Your task to perform on an android device: Turn off the flashlight Image 0: 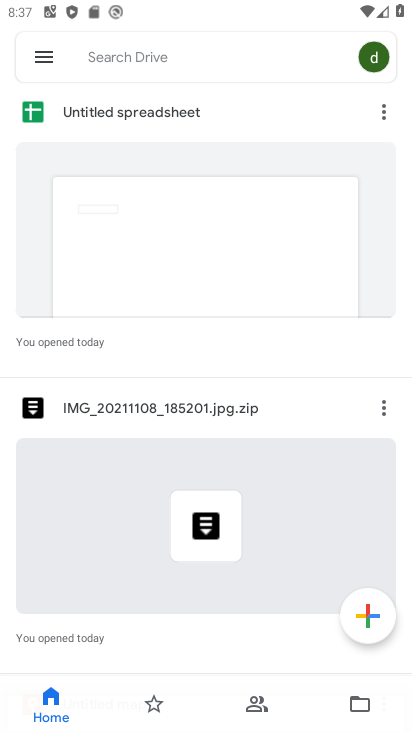
Step 0: press home button
Your task to perform on an android device: Turn off the flashlight Image 1: 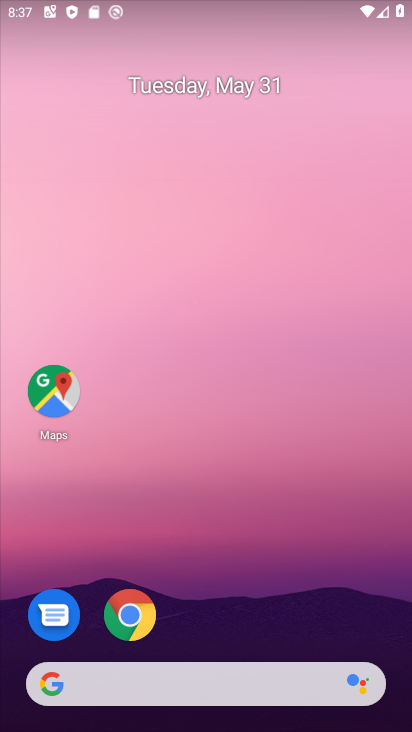
Step 1: drag from (249, 20) to (232, 448)
Your task to perform on an android device: Turn off the flashlight Image 2: 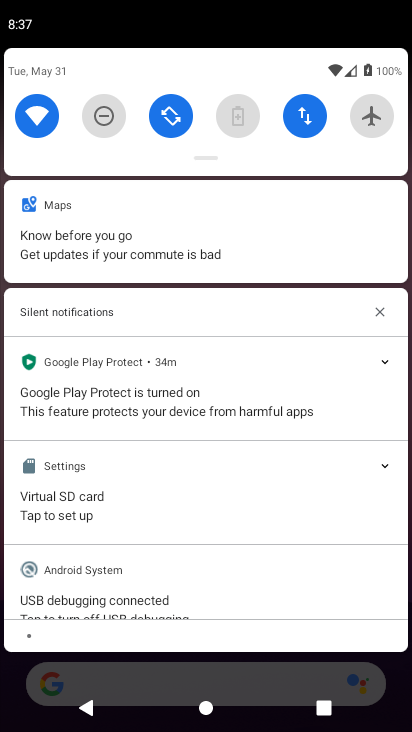
Step 2: drag from (203, 148) to (216, 416)
Your task to perform on an android device: Turn off the flashlight Image 3: 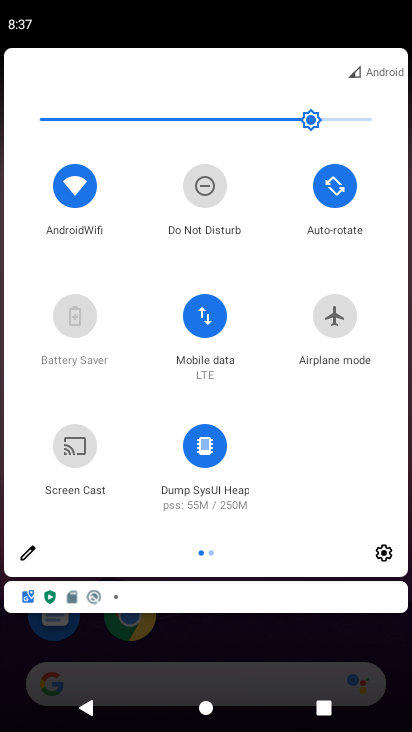
Step 3: click (22, 550)
Your task to perform on an android device: Turn off the flashlight Image 4: 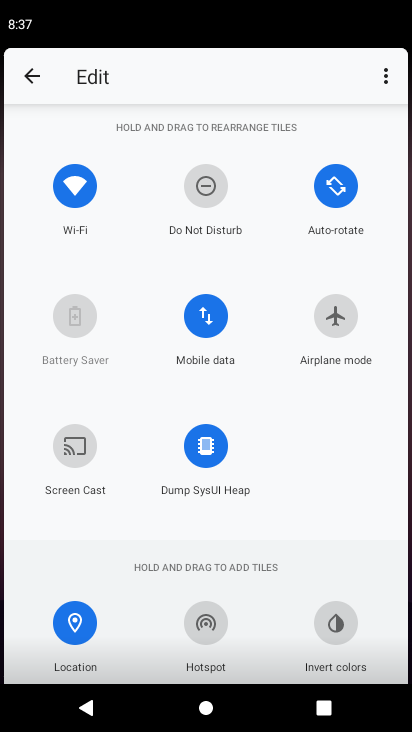
Step 4: task complete